Your task to perform on an android device: Go to sound settings Image 0: 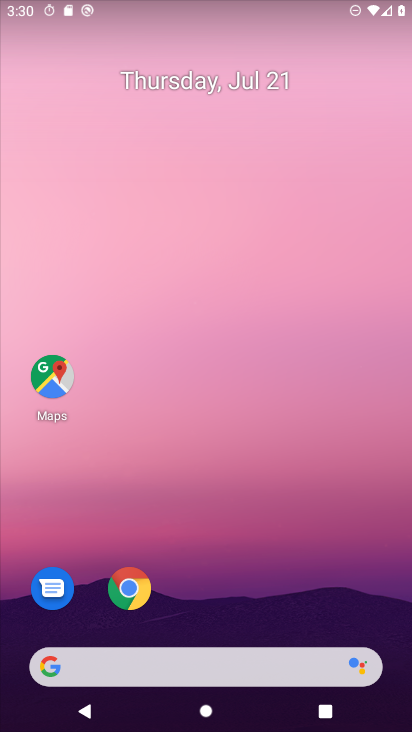
Step 0: drag from (202, 660) to (279, 8)
Your task to perform on an android device: Go to sound settings Image 1: 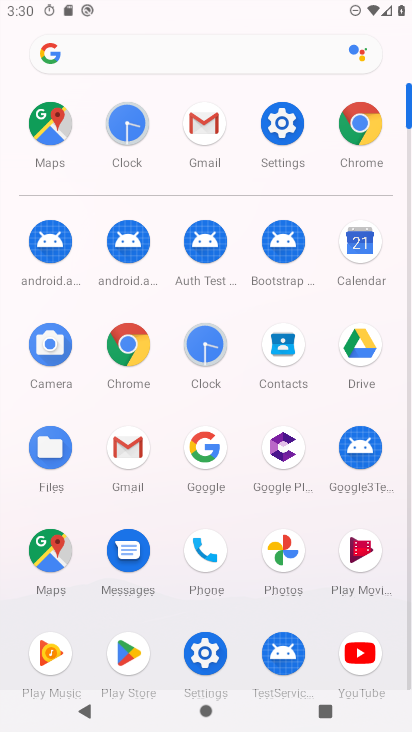
Step 1: click (284, 128)
Your task to perform on an android device: Go to sound settings Image 2: 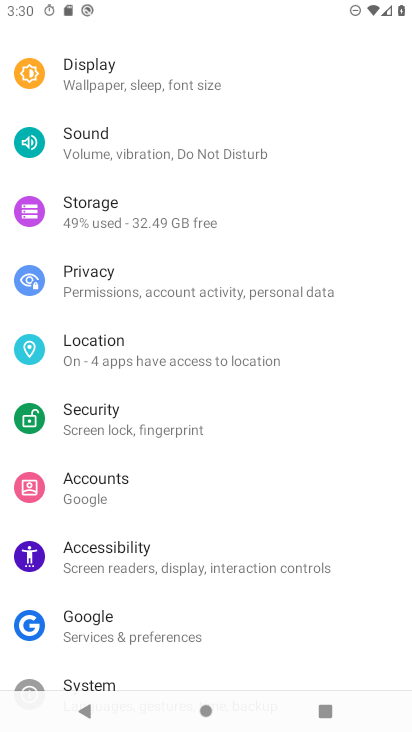
Step 2: drag from (174, 515) to (187, 684)
Your task to perform on an android device: Go to sound settings Image 3: 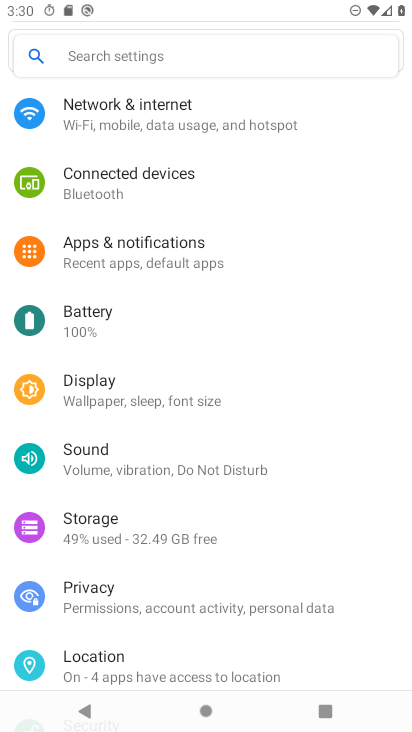
Step 3: click (152, 449)
Your task to perform on an android device: Go to sound settings Image 4: 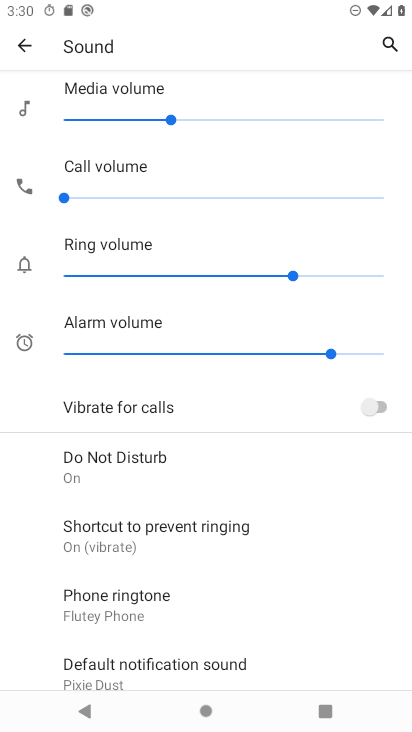
Step 4: task complete